Your task to perform on an android device: turn off location Image 0: 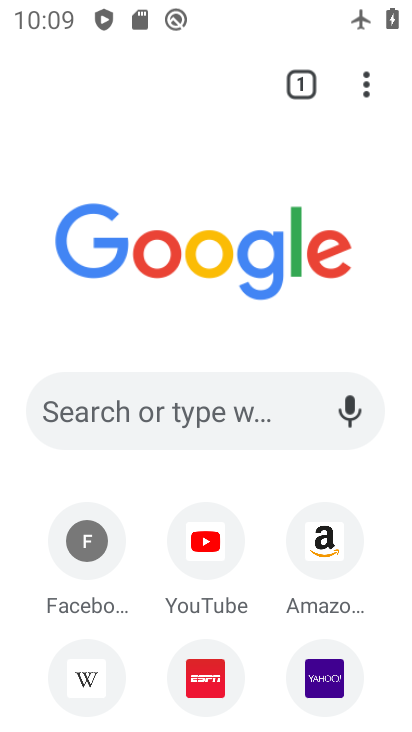
Step 0: press home button
Your task to perform on an android device: turn off location Image 1: 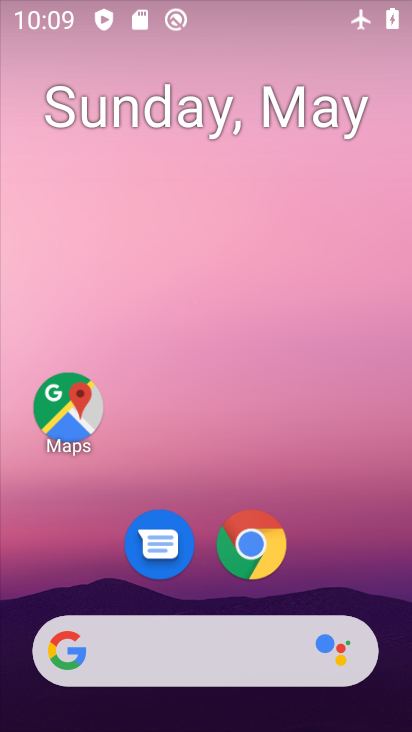
Step 1: drag from (313, 555) to (329, 192)
Your task to perform on an android device: turn off location Image 2: 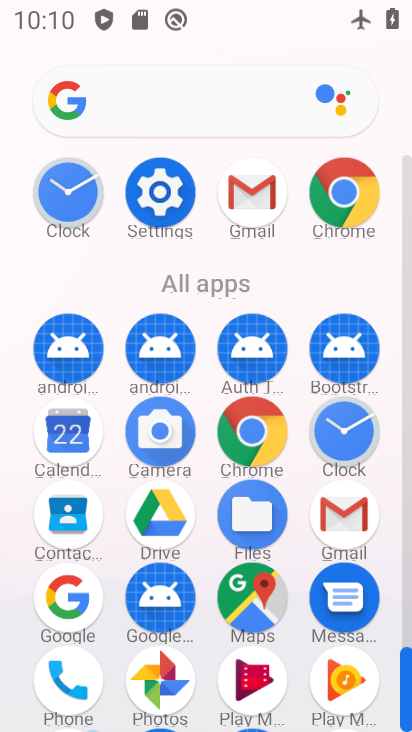
Step 2: click (167, 206)
Your task to perform on an android device: turn off location Image 3: 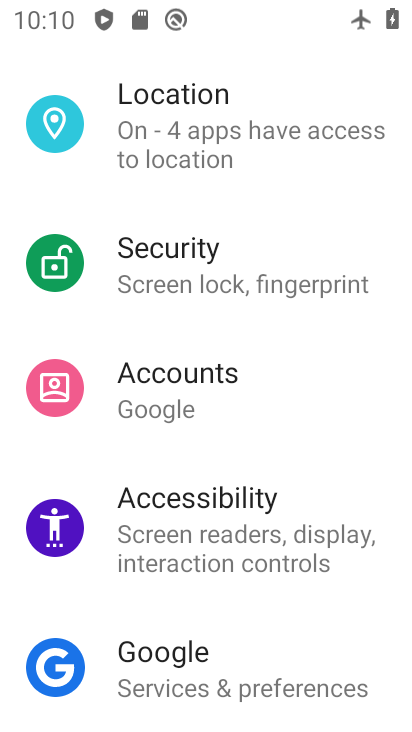
Step 3: click (235, 141)
Your task to perform on an android device: turn off location Image 4: 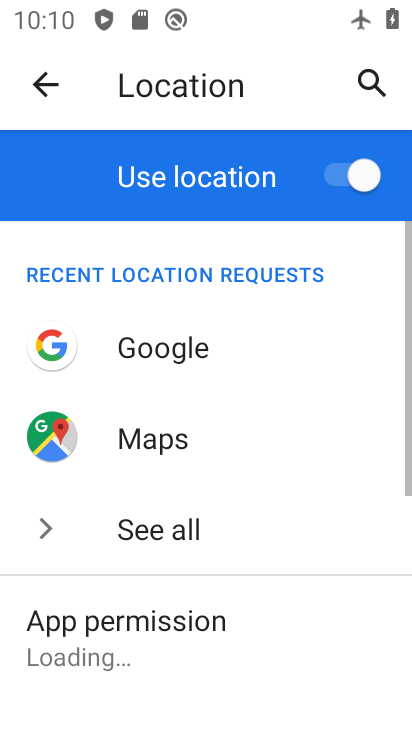
Step 4: click (333, 172)
Your task to perform on an android device: turn off location Image 5: 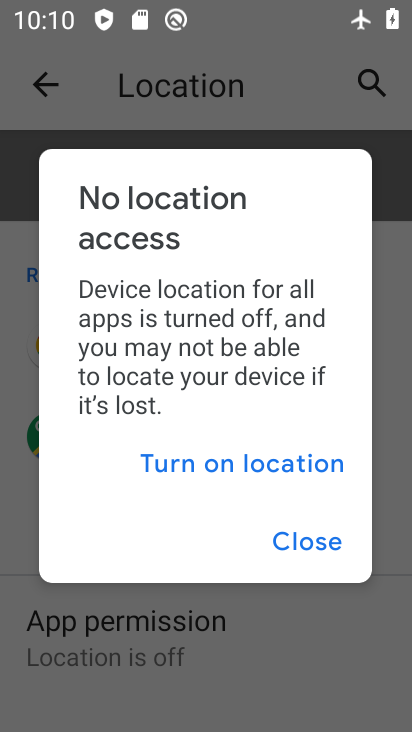
Step 5: click (278, 533)
Your task to perform on an android device: turn off location Image 6: 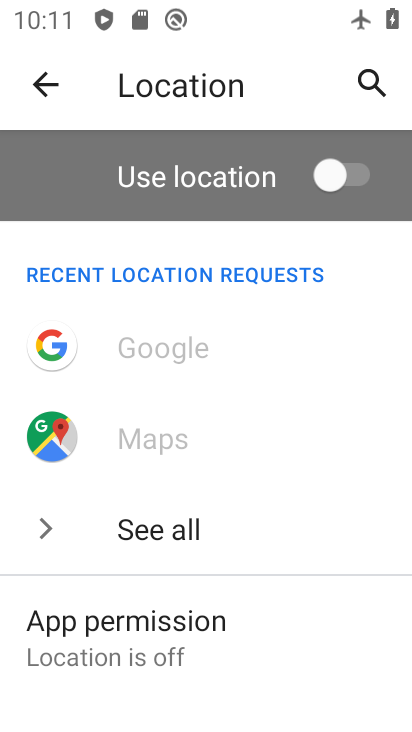
Step 6: task complete